Your task to perform on an android device: toggle pop-ups in chrome Image 0: 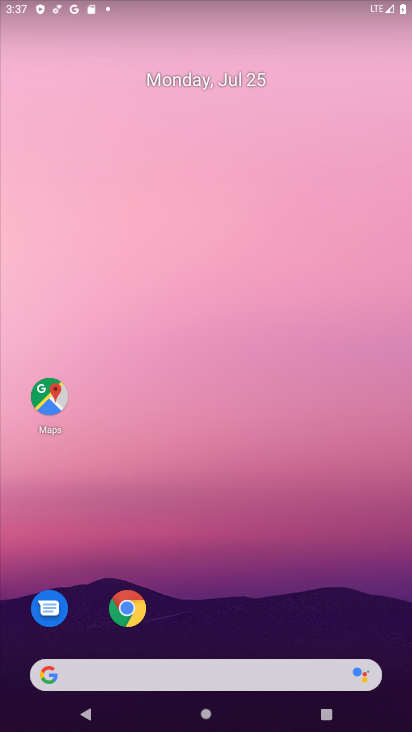
Step 0: click (113, 612)
Your task to perform on an android device: toggle pop-ups in chrome Image 1: 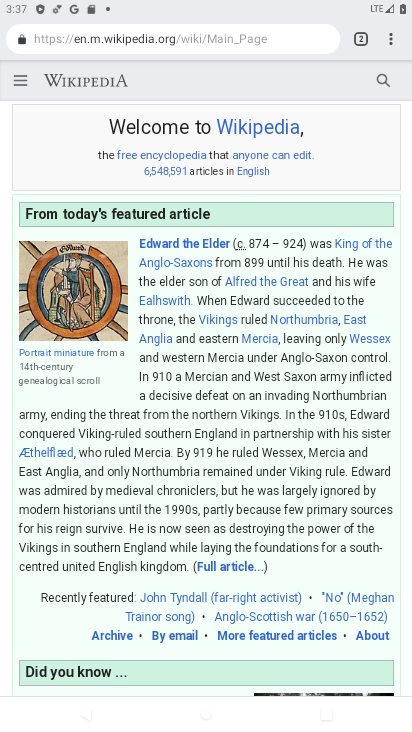
Step 1: click (393, 42)
Your task to perform on an android device: toggle pop-ups in chrome Image 2: 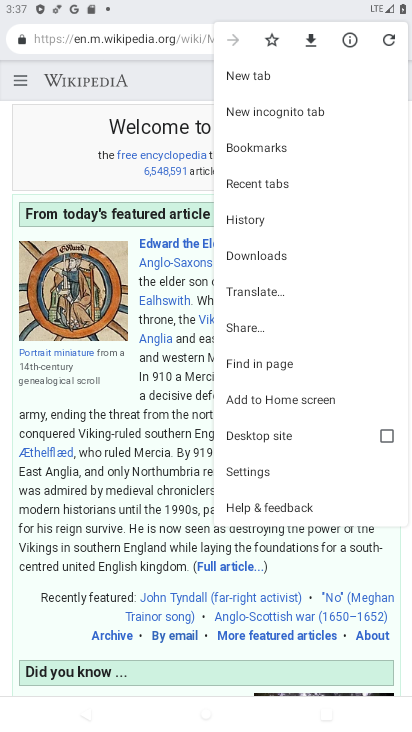
Step 2: click (272, 469)
Your task to perform on an android device: toggle pop-ups in chrome Image 3: 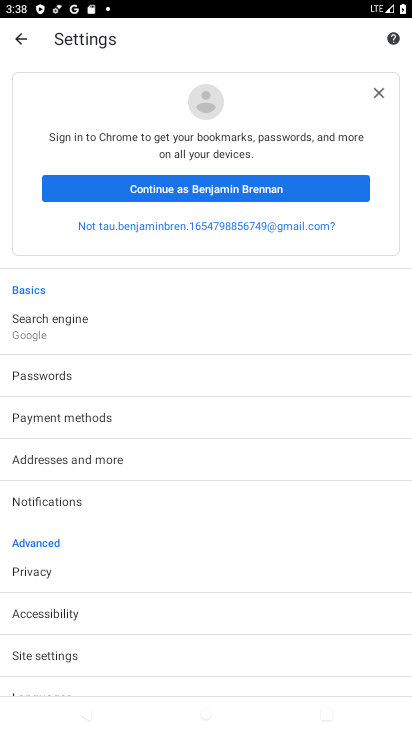
Step 3: drag from (1, 667) to (159, 257)
Your task to perform on an android device: toggle pop-ups in chrome Image 4: 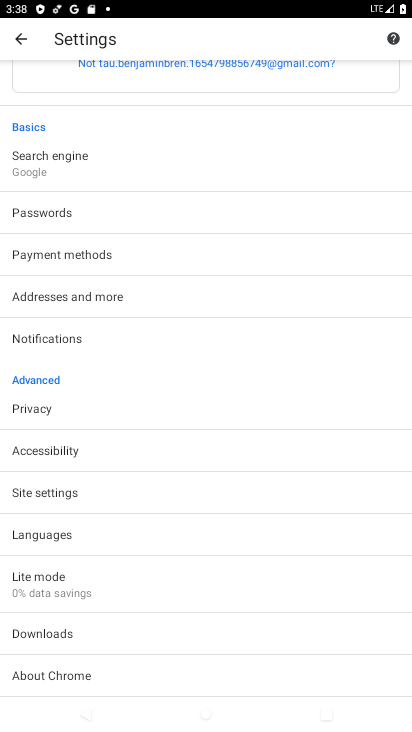
Step 4: click (45, 495)
Your task to perform on an android device: toggle pop-ups in chrome Image 5: 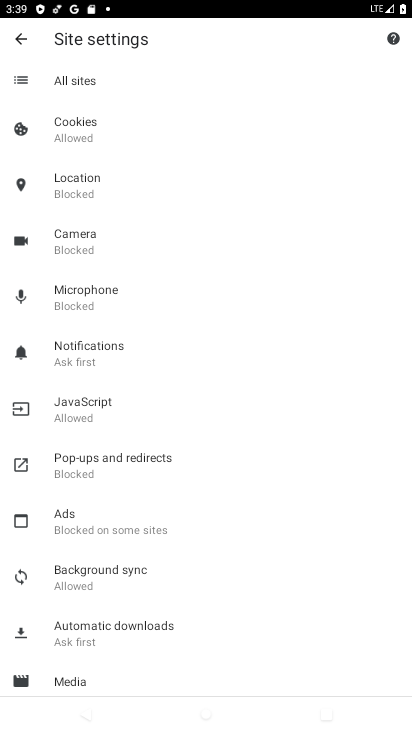
Step 5: click (95, 473)
Your task to perform on an android device: toggle pop-ups in chrome Image 6: 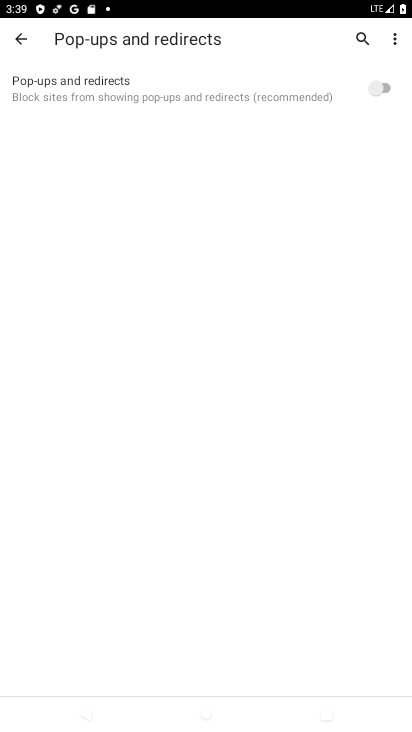
Step 6: click (372, 87)
Your task to perform on an android device: toggle pop-ups in chrome Image 7: 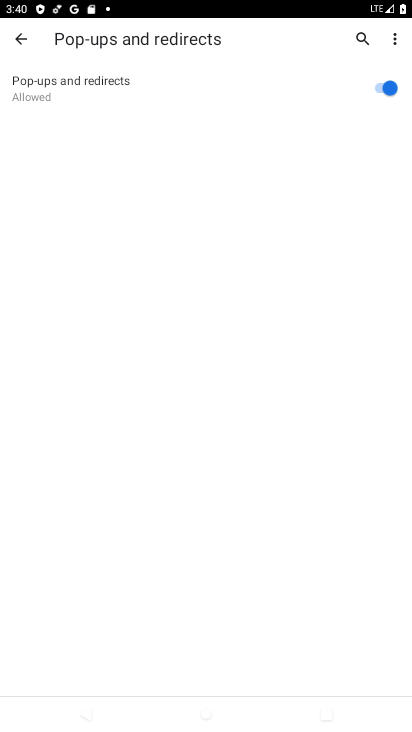
Step 7: task complete